Your task to perform on an android device: Is it going to rain today? Image 0: 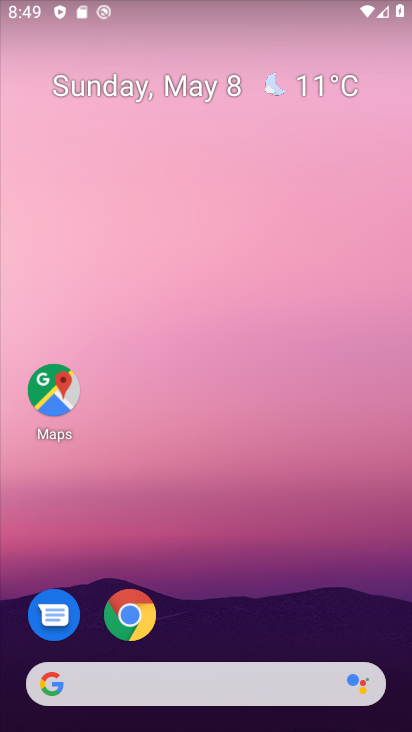
Step 0: drag from (189, 568) to (191, 190)
Your task to perform on an android device: Is it going to rain today? Image 1: 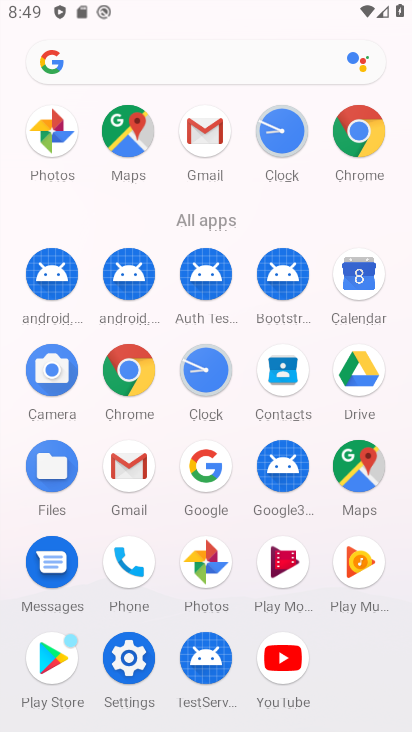
Step 1: click (196, 471)
Your task to perform on an android device: Is it going to rain today? Image 2: 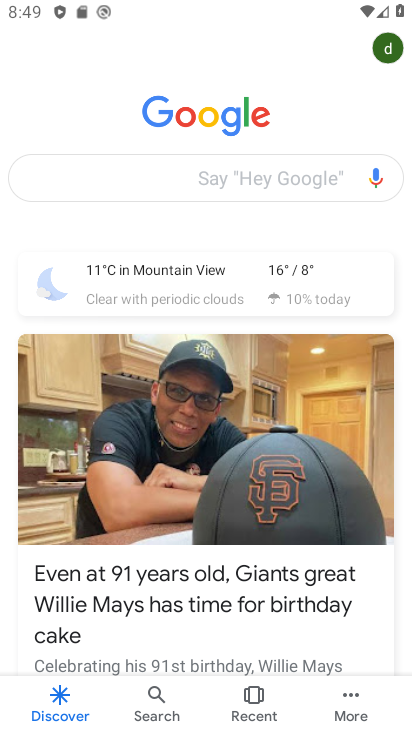
Step 2: click (186, 282)
Your task to perform on an android device: Is it going to rain today? Image 3: 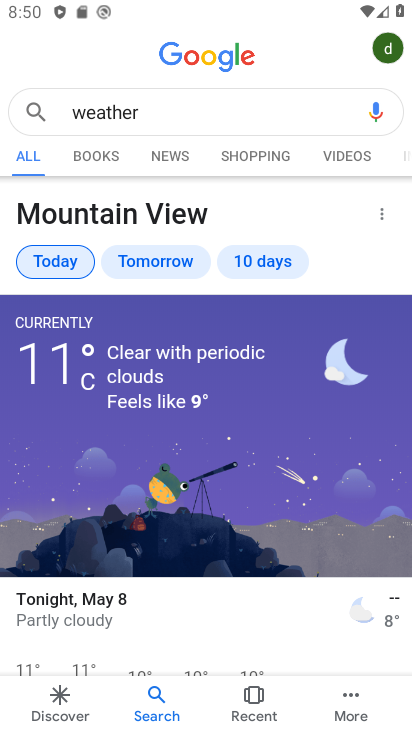
Step 3: task complete